Your task to perform on an android device: Open calendar and show me the fourth week of next month Image 0: 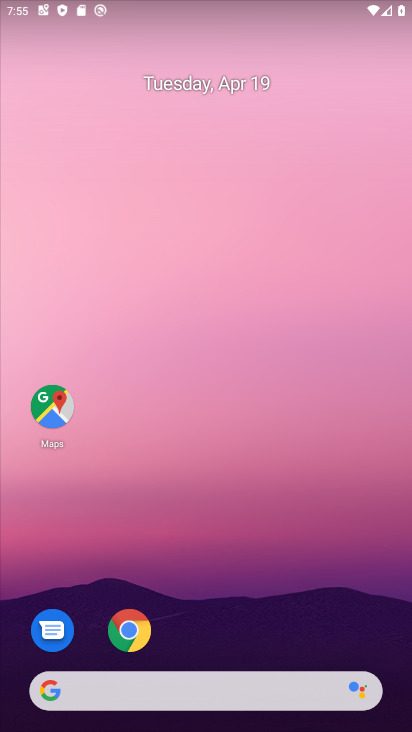
Step 0: drag from (204, 640) to (260, 23)
Your task to perform on an android device: Open calendar and show me the fourth week of next month Image 1: 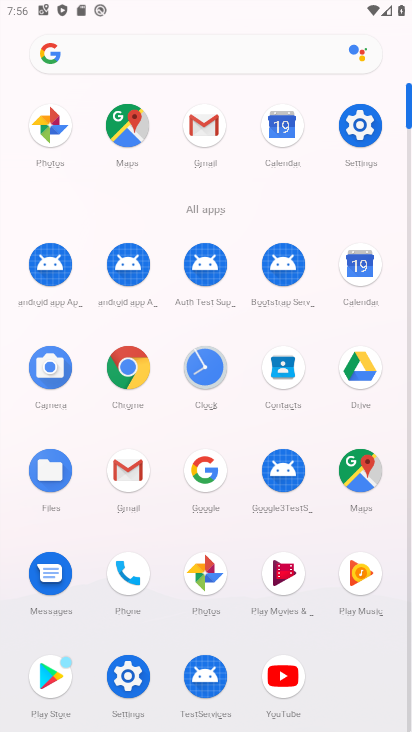
Step 1: click (367, 277)
Your task to perform on an android device: Open calendar and show me the fourth week of next month Image 2: 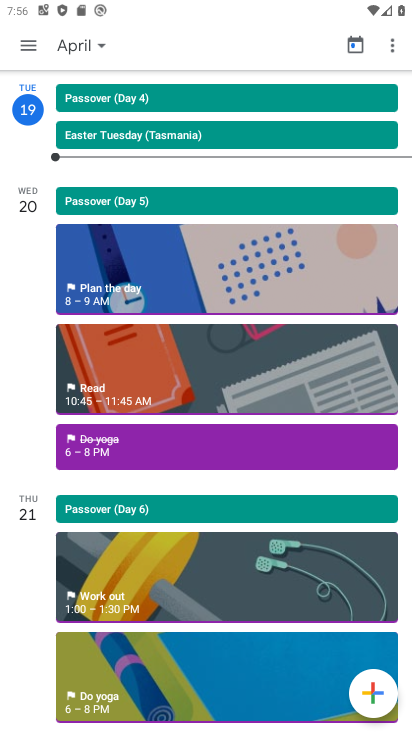
Step 2: click (82, 50)
Your task to perform on an android device: Open calendar and show me the fourth week of next month Image 3: 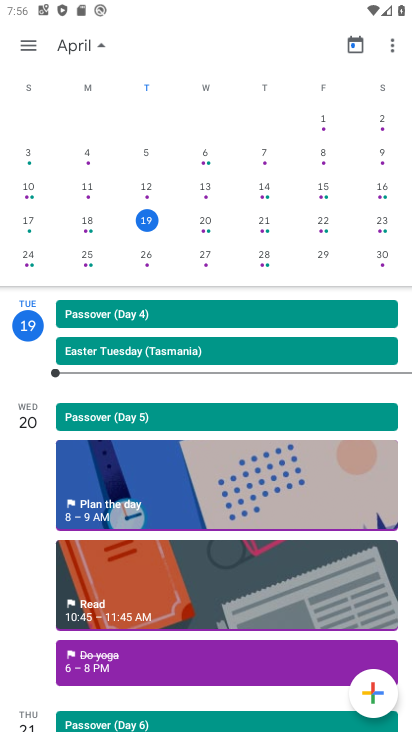
Step 3: drag from (383, 222) to (0, 64)
Your task to perform on an android device: Open calendar and show me the fourth week of next month Image 4: 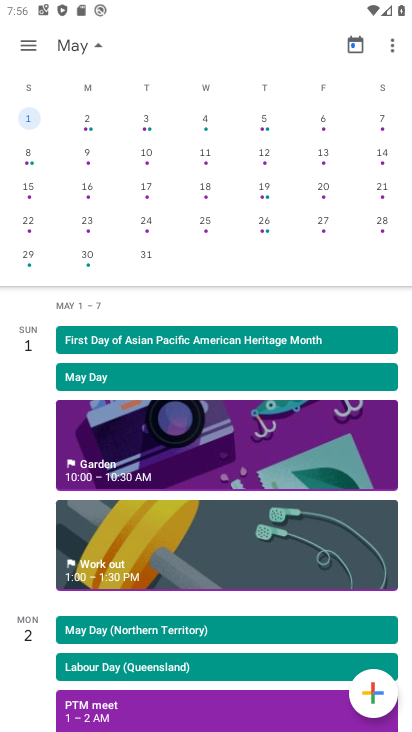
Step 4: click (21, 48)
Your task to perform on an android device: Open calendar and show me the fourth week of next month Image 5: 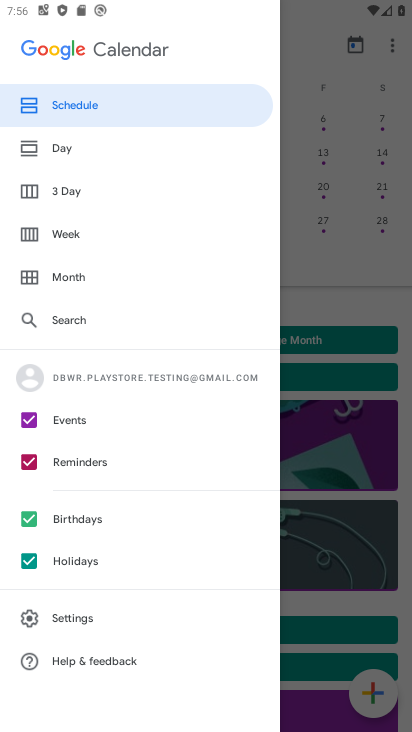
Step 5: click (85, 233)
Your task to perform on an android device: Open calendar and show me the fourth week of next month Image 6: 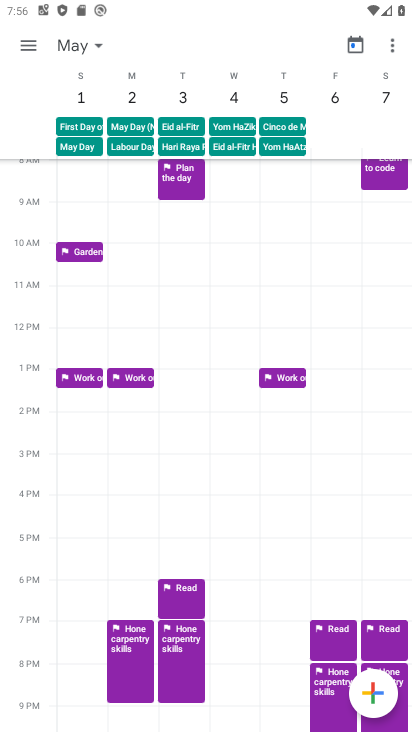
Step 6: task complete